Your task to perform on an android device: Go to Maps Image 0: 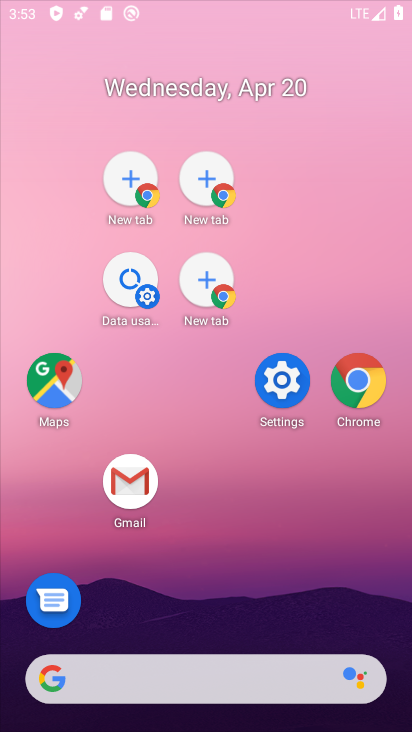
Step 0: click (276, 386)
Your task to perform on an android device: Go to Maps Image 1: 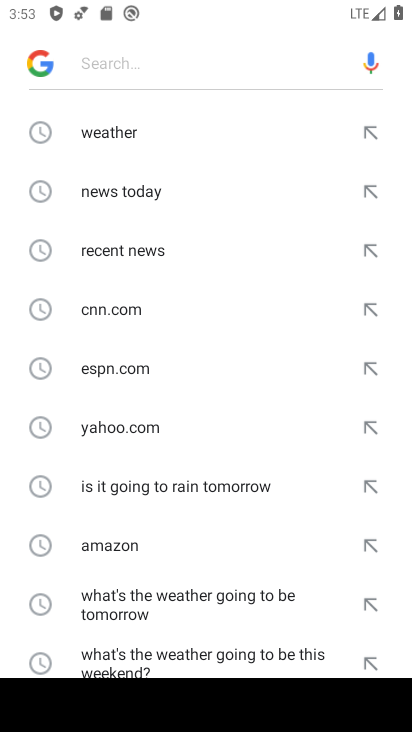
Step 1: press home button
Your task to perform on an android device: Go to Maps Image 2: 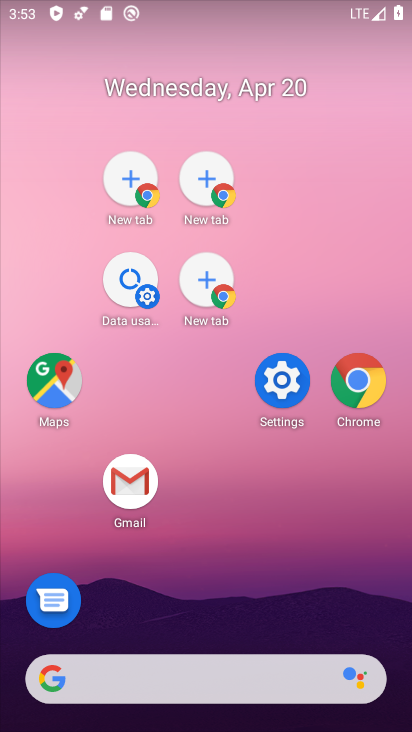
Step 2: click (42, 390)
Your task to perform on an android device: Go to Maps Image 3: 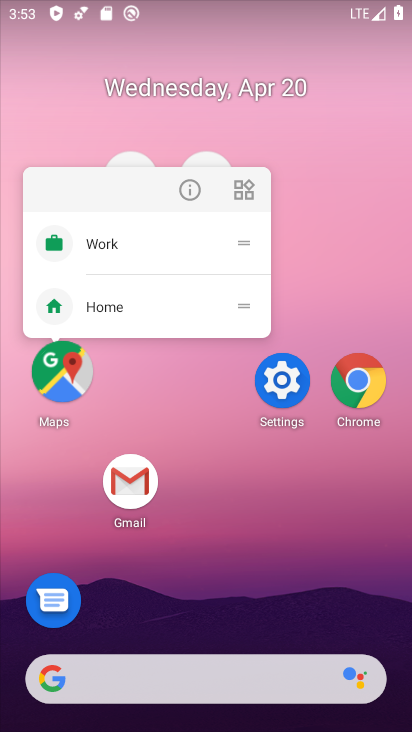
Step 3: click (69, 362)
Your task to perform on an android device: Go to Maps Image 4: 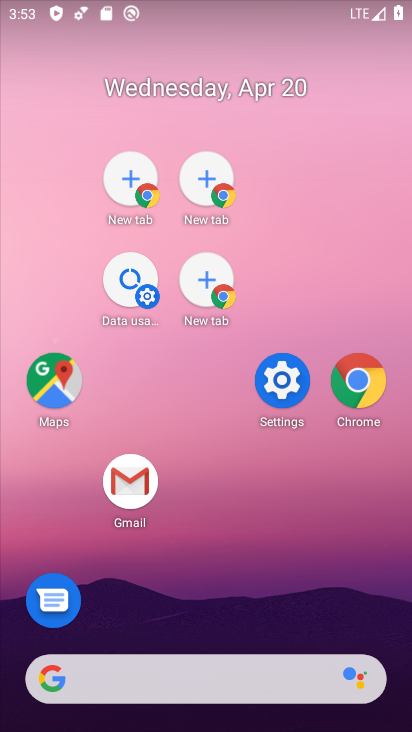
Step 4: click (57, 370)
Your task to perform on an android device: Go to Maps Image 5: 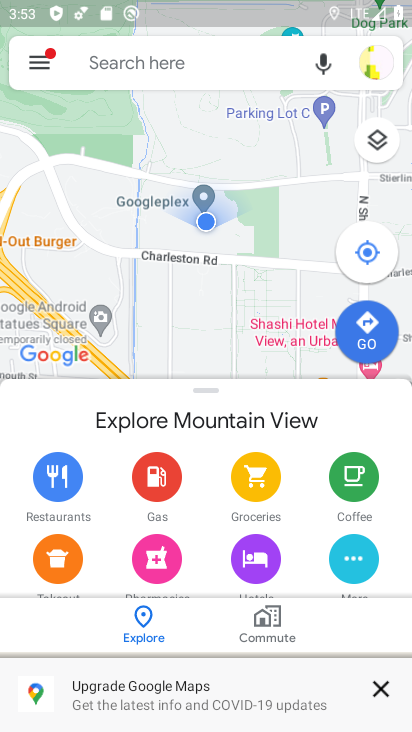
Step 5: task complete